Your task to perform on an android device: Go to Google Image 0: 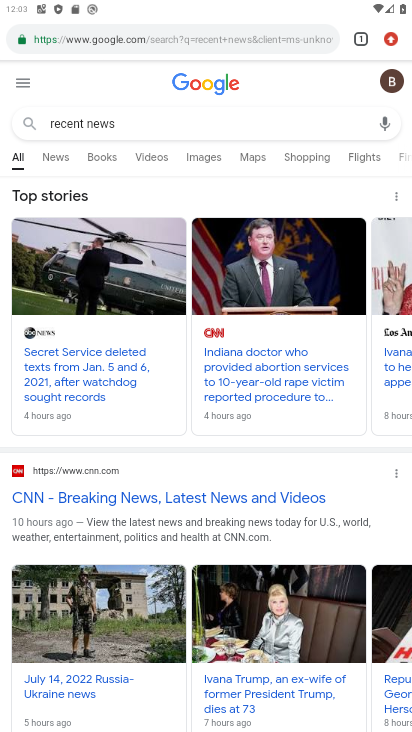
Step 0: press home button
Your task to perform on an android device: Go to Google Image 1: 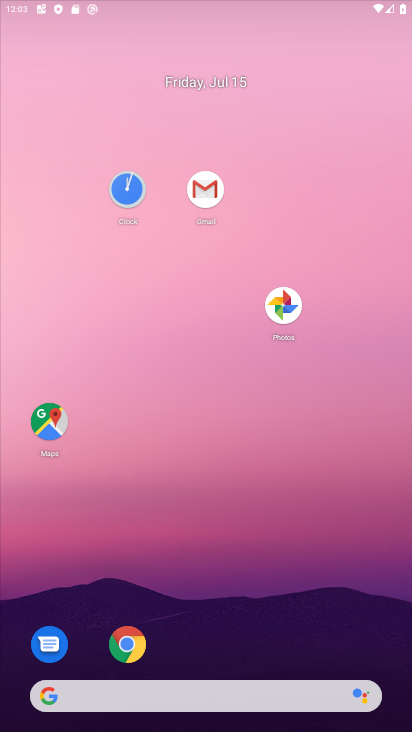
Step 1: drag from (291, 648) to (348, 206)
Your task to perform on an android device: Go to Google Image 2: 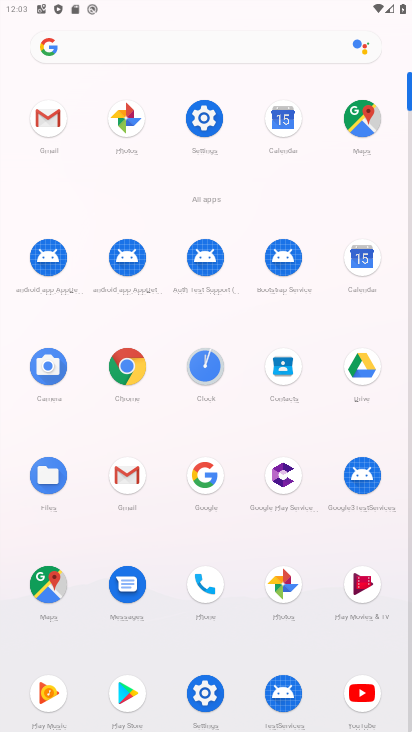
Step 2: click (200, 472)
Your task to perform on an android device: Go to Google Image 3: 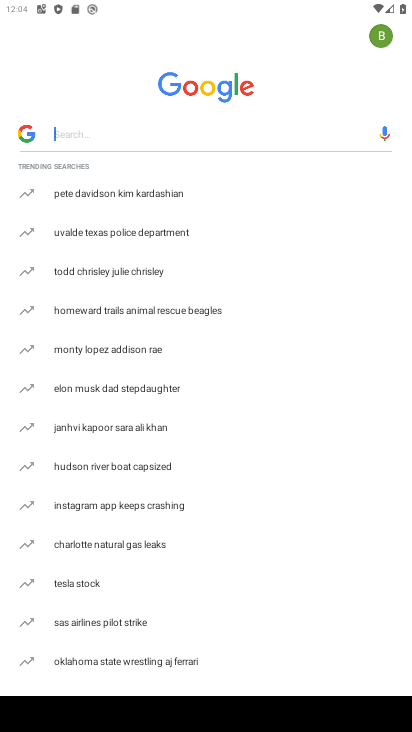
Step 3: task complete